Your task to perform on an android device: Open privacy settings Image 0: 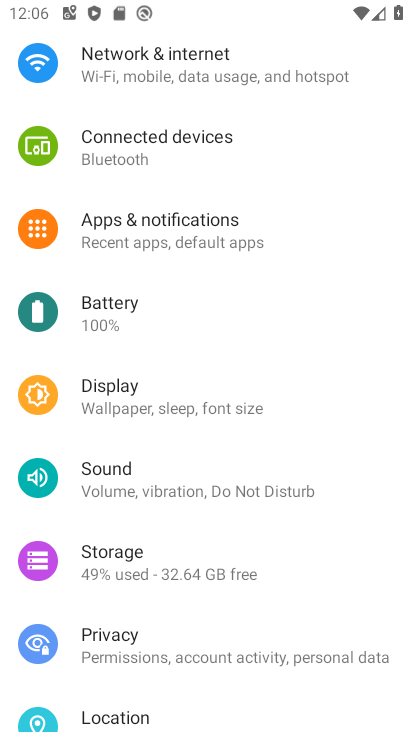
Step 0: press back button
Your task to perform on an android device: Open privacy settings Image 1: 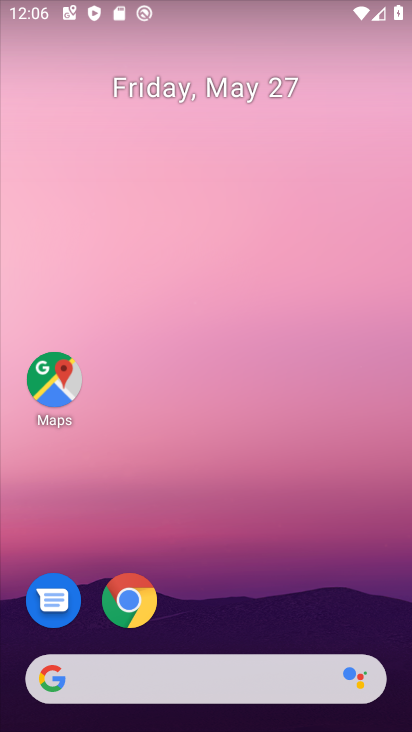
Step 1: drag from (282, 547) to (225, 2)
Your task to perform on an android device: Open privacy settings Image 2: 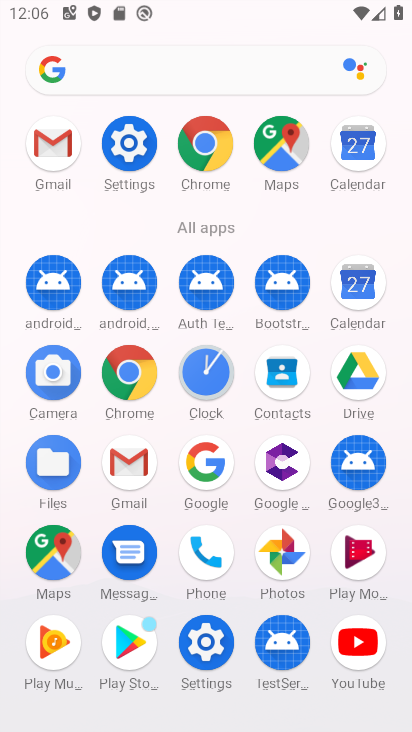
Step 2: click (128, 371)
Your task to perform on an android device: Open privacy settings Image 3: 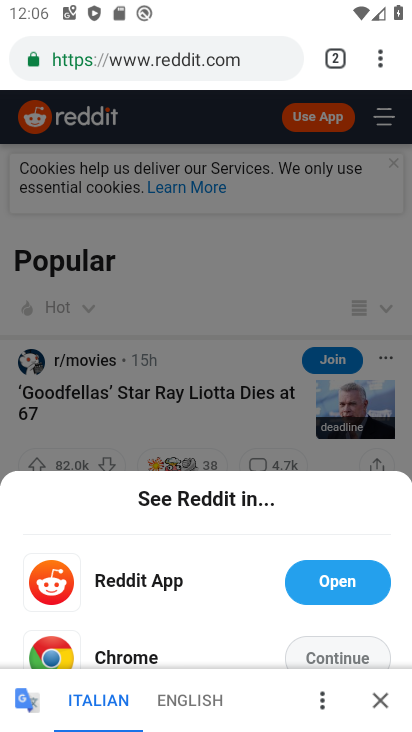
Step 3: drag from (380, 62) to (194, 606)
Your task to perform on an android device: Open privacy settings Image 4: 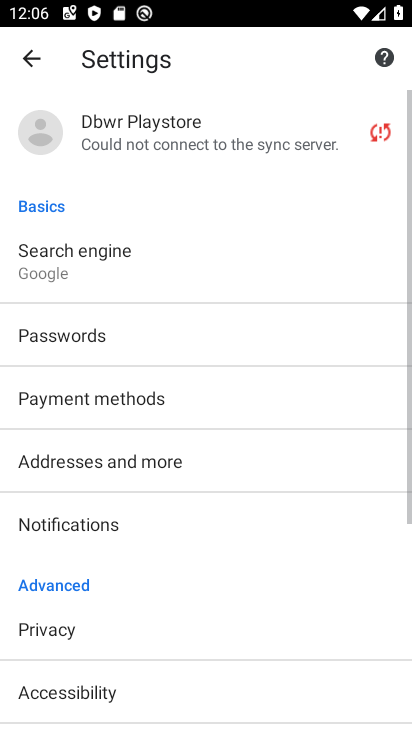
Step 4: click (53, 612)
Your task to perform on an android device: Open privacy settings Image 5: 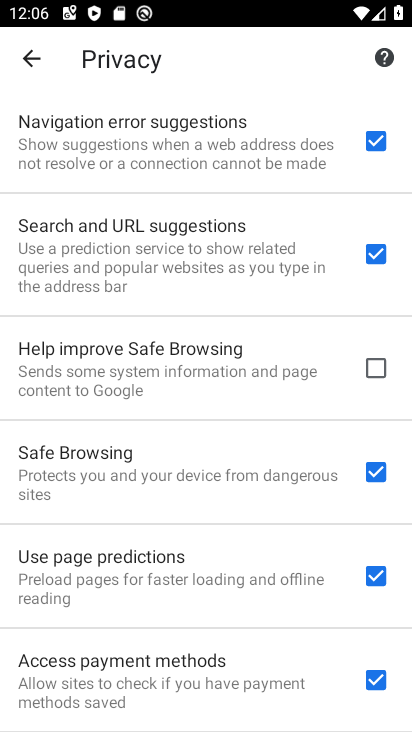
Step 5: task complete